Your task to perform on an android device: Open the calendar app, open the side menu, and click the "Day" option Image 0: 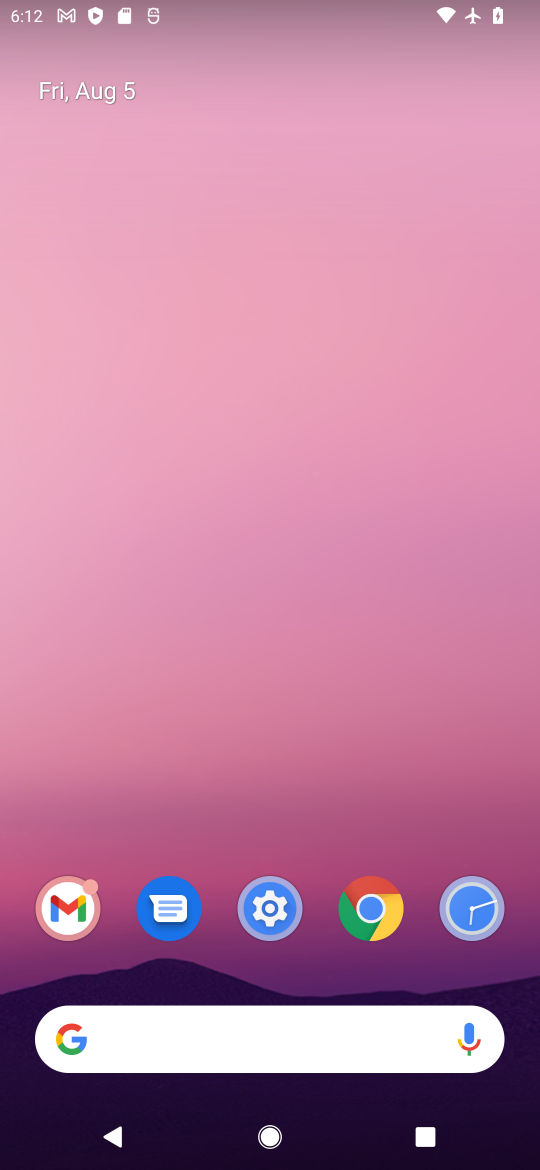
Step 0: drag from (286, 886) to (163, 6)
Your task to perform on an android device: Open the calendar app, open the side menu, and click the "Day" option Image 1: 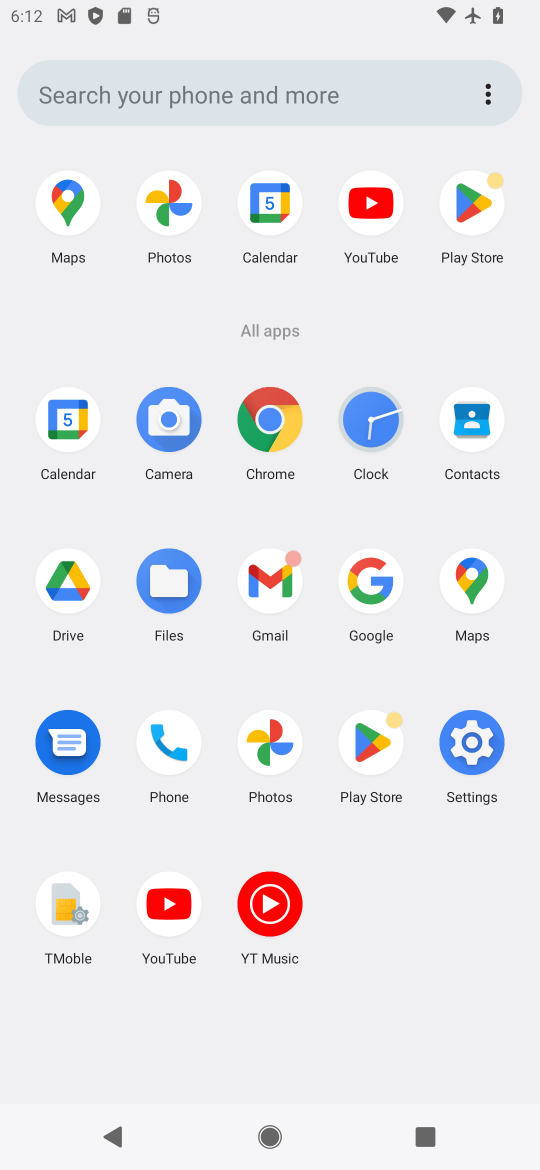
Step 1: click (62, 453)
Your task to perform on an android device: Open the calendar app, open the side menu, and click the "Day" option Image 2: 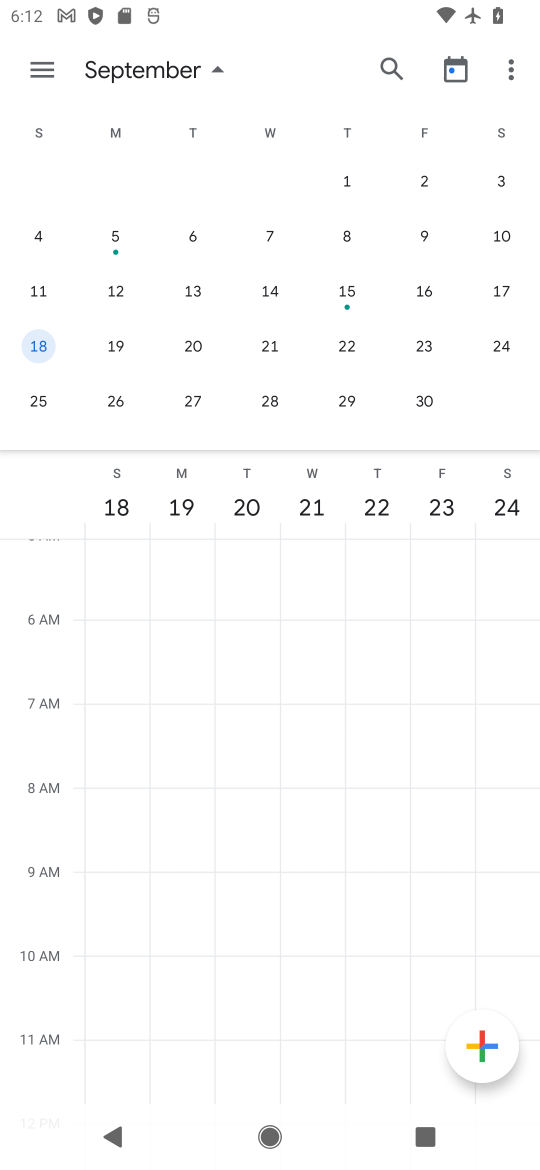
Step 2: click (45, 67)
Your task to perform on an android device: Open the calendar app, open the side menu, and click the "Day" option Image 3: 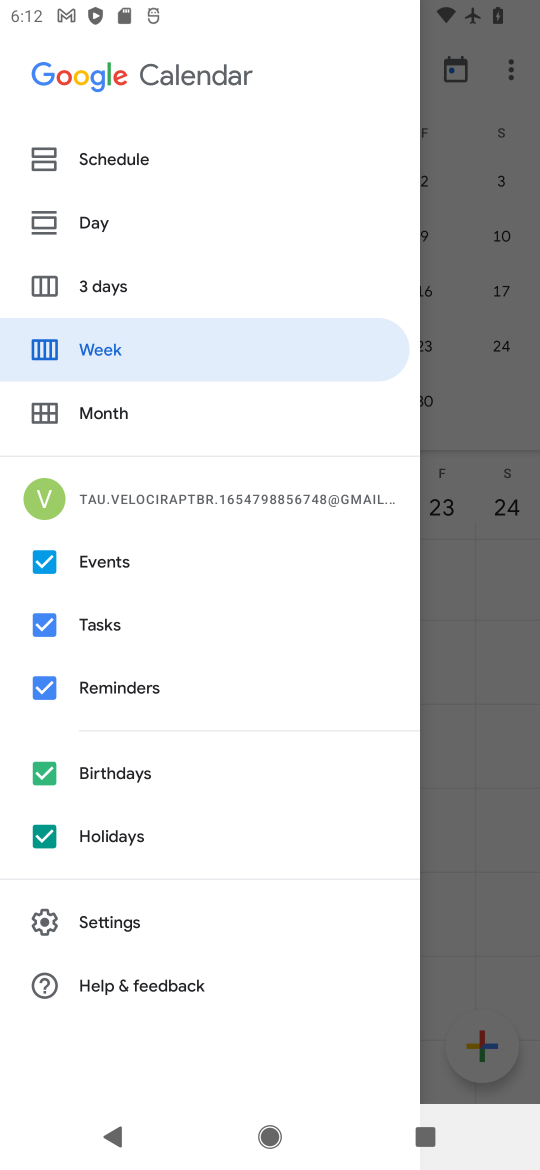
Step 3: click (87, 230)
Your task to perform on an android device: Open the calendar app, open the side menu, and click the "Day" option Image 4: 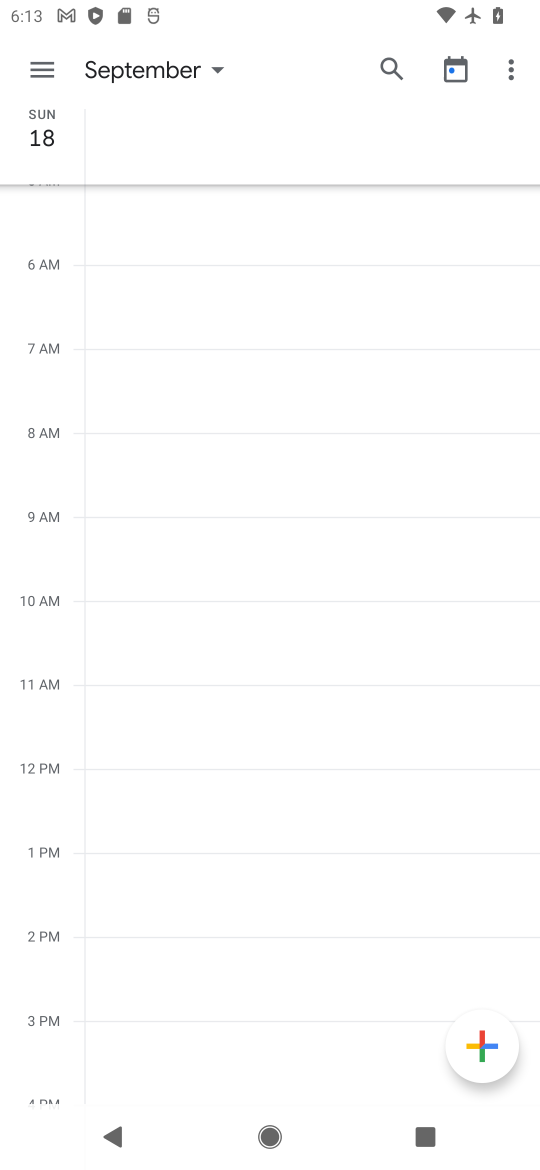
Step 4: task complete